Your task to perform on an android device: delete the emails in spam in the gmail app Image 0: 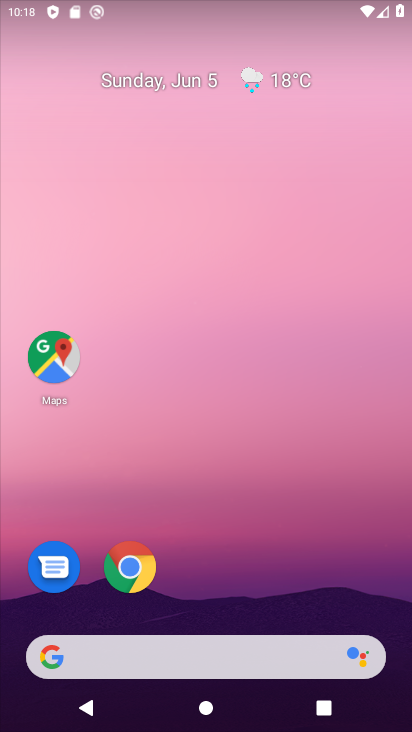
Step 0: drag from (190, 626) to (176, 180)
Your task to perform on an android device: delete the emails in spam in the gmail app Image 1: 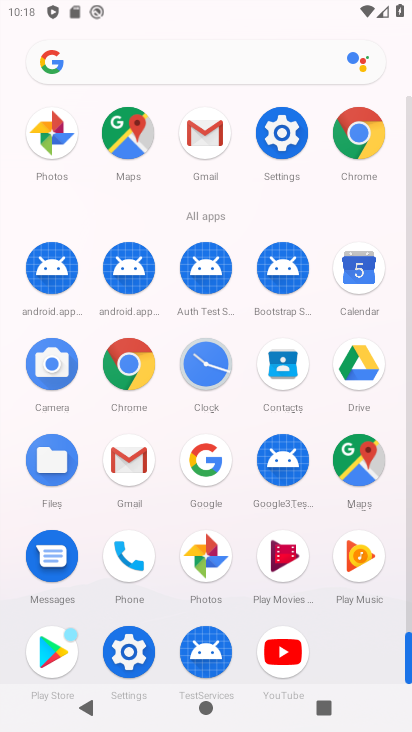
Step 1: click (197, 116)
Your task to perform on an android device: delete the emails in spam in the gmail app Image 2: 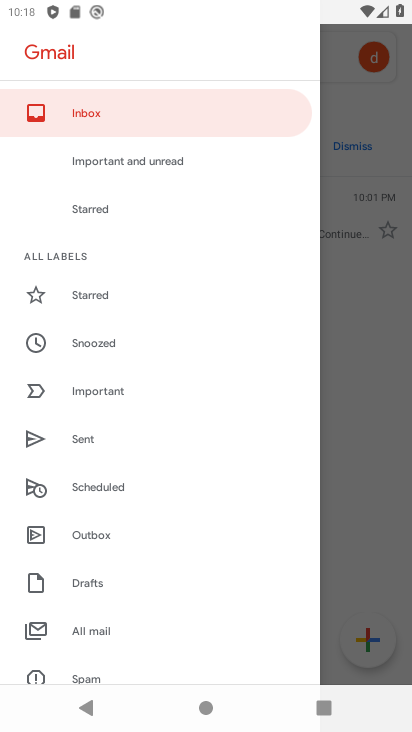
Step 2: click (96, 674)
Your task to perform on an android device: delete the emails in spam in the gmail app Image 3: 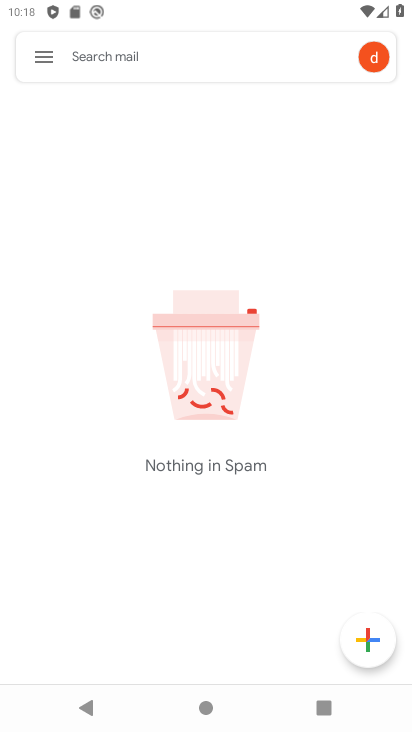
Step 3: task complete